Your task to perform on an android device: Go to sound settings Image 0: 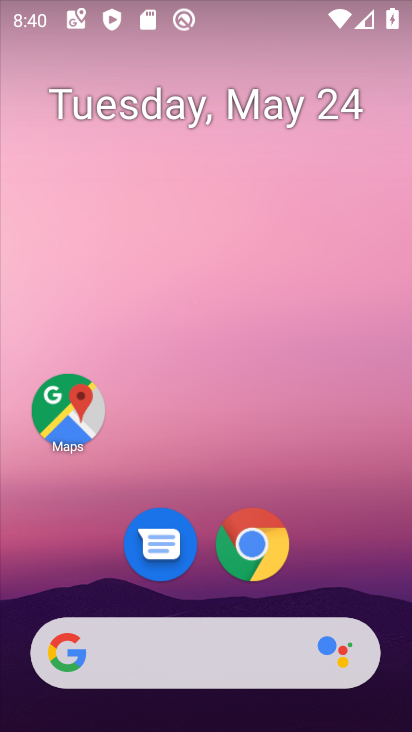
Step 0: click (310, 150)
Your task to perform on an android device: Go to sound settings Image 1: 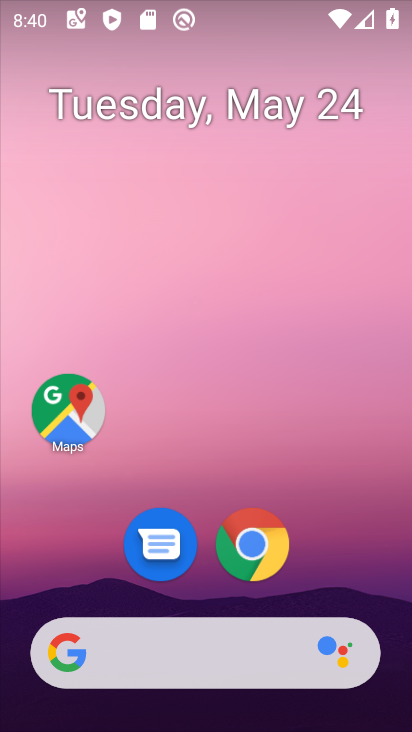
Step 1: drag from (398, 631) to (283, 61)
Your task to perform on an android device: Go to sound settings Image 2: 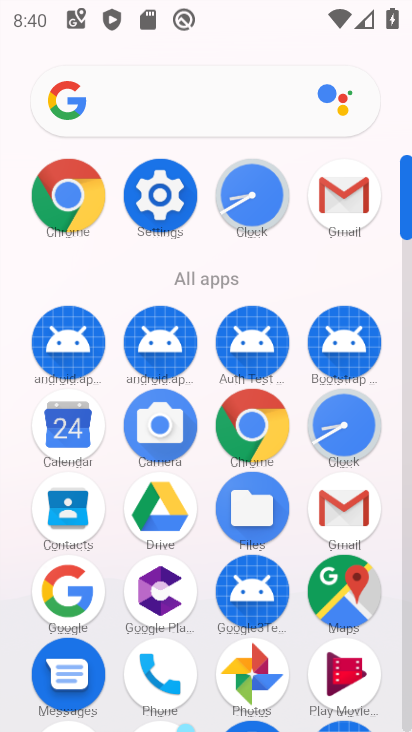
Step 2: click (162, 210)
Your task to perform on an android device: Go to sound settings Image 3: 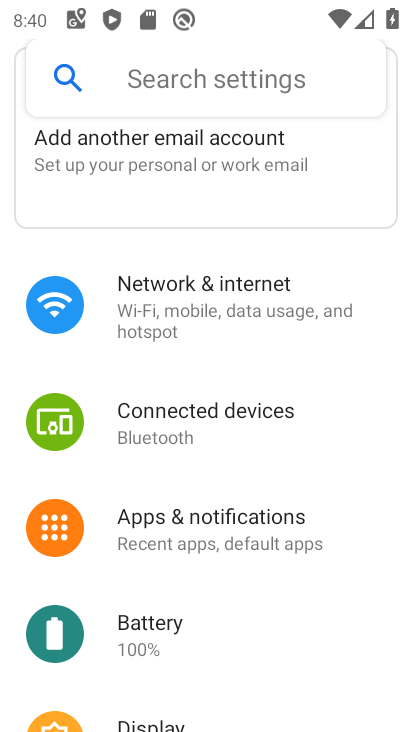
Step 3: drag from (250, 676) to (203, 161)
Your task to perform on an android device: Go to sound settings Image 4: 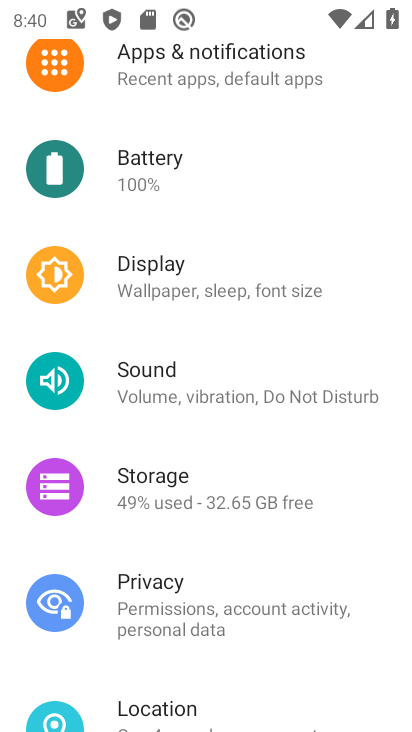
Step 4: click (251, 393)
Your task to perform on an android device: Go to sound settings Image 5: 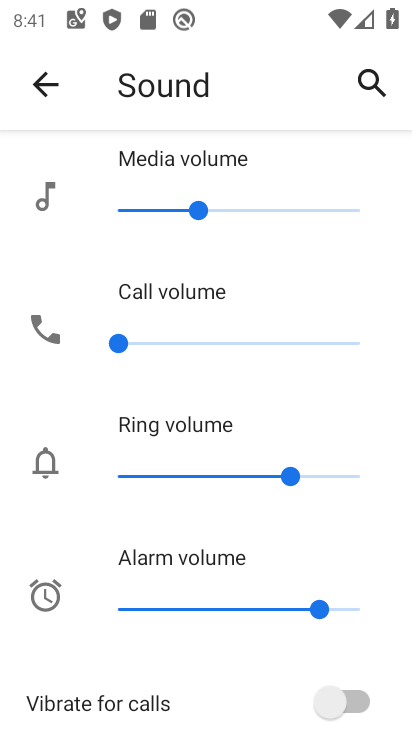
Step 5: task complete